Your task to perform on an android device: What's the weather going to be tomorrow? Image 0: 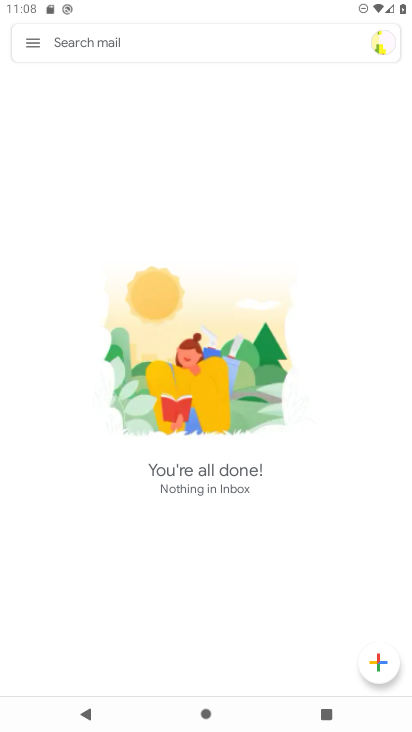
Step 0: press home button
Your task to perform on an android device: What's the weather going to be tomorrow? Image 1: 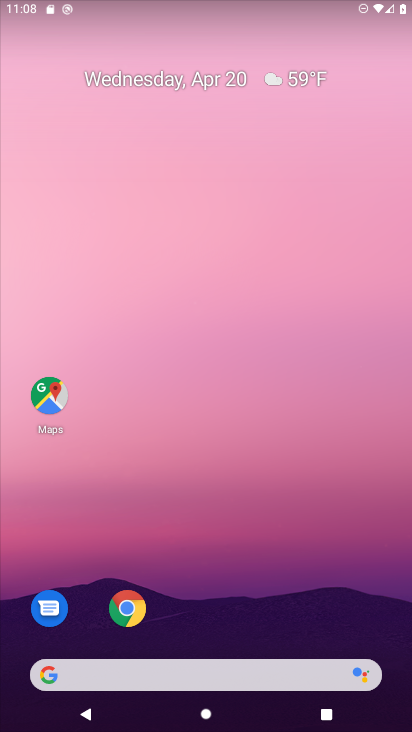
Step 1: click (130, 610)
Your task to perform on an android device: What's the weather going to be tomorrow? Image 2: 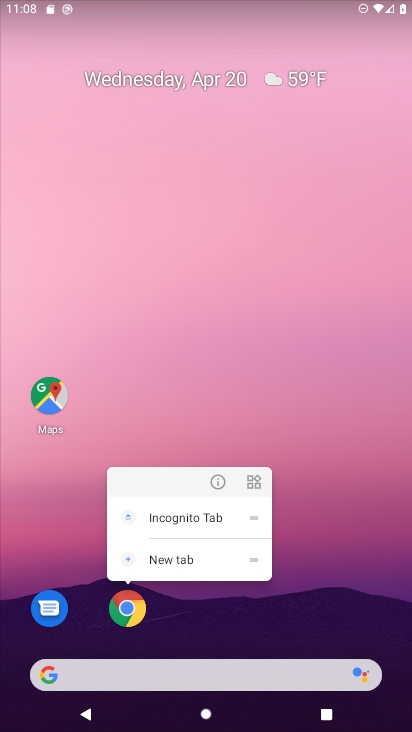
Step 2: click (134, 619)
Your task to perform on an android device: What's the weather going to be tomorrow? Image 3: 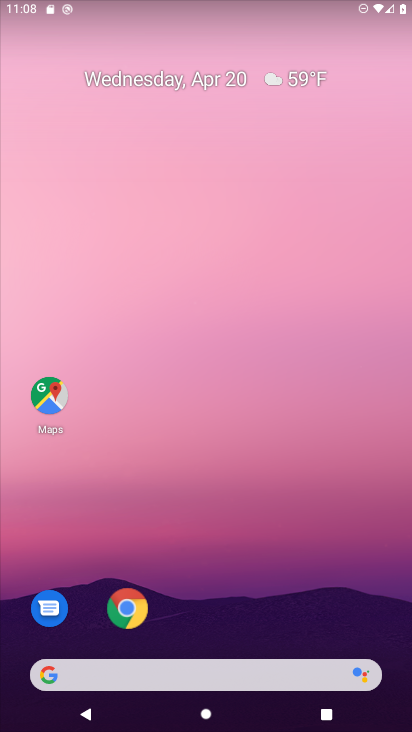
Step 3: click (134, 618)
Your task to perform on an android device: What's the weather going to be tomorrow? Image 4: 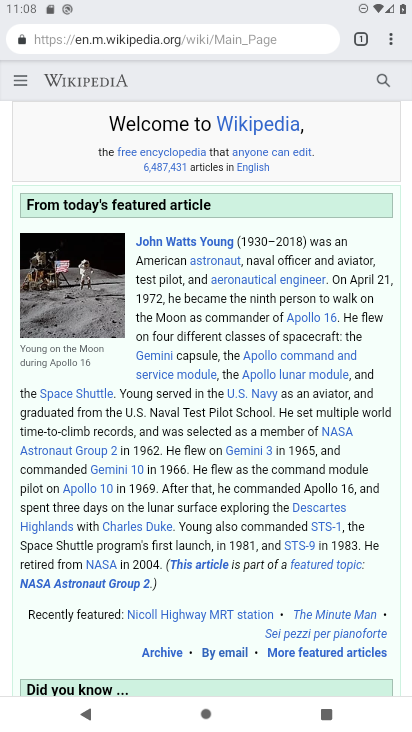
Step 4: click (182, 32)
Your task to perform on an android device: What's the weather going to be tomorrow? Image 5: 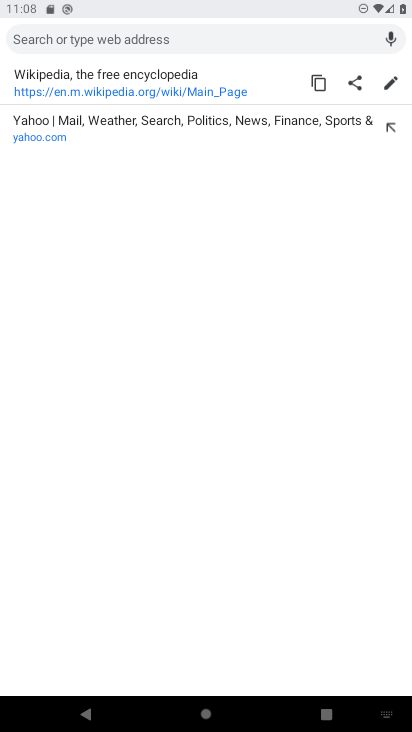
Step 5: type "whats the weather going to be tomorrow?"
Your task to perform on an android device: What's the weather going to be tomorrow? Image 6: 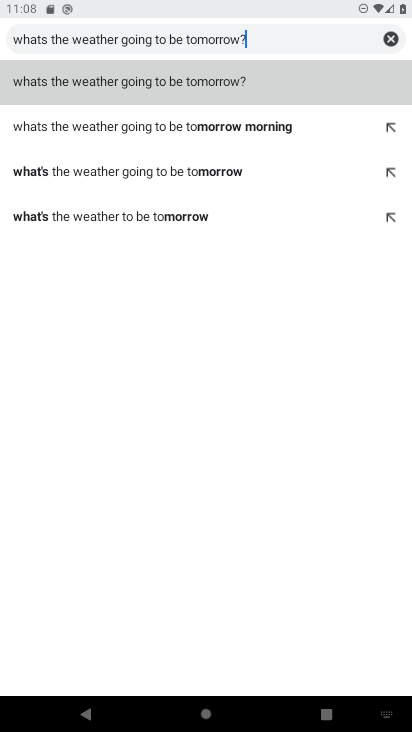
Step 6: click (217, 86)
Your task to perform on an android device: What's the weather going to be tomorrow? Image 7: 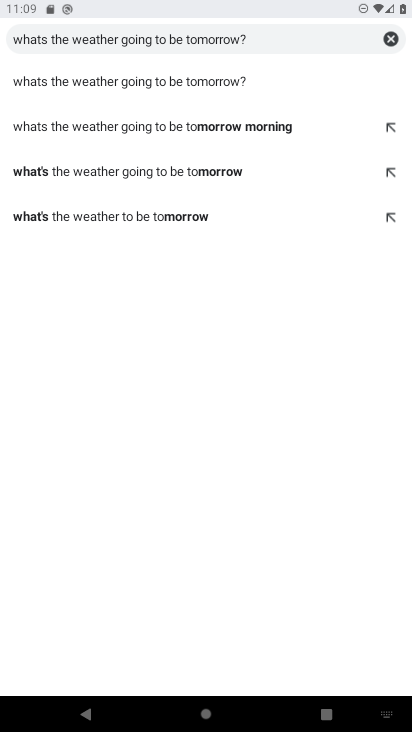
Step 7: click (219, 88)
Your task to perform on an android device: What's the weather going to be tomorrow? Image 8: 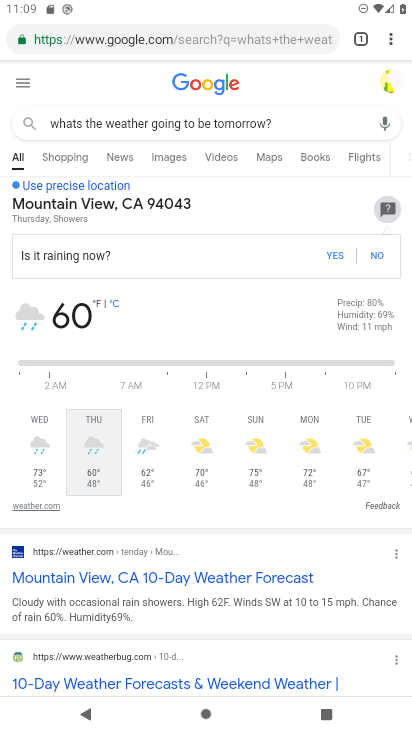
Step 8: task complete